Your task to perform on an android device: change notifications settings Image 0: 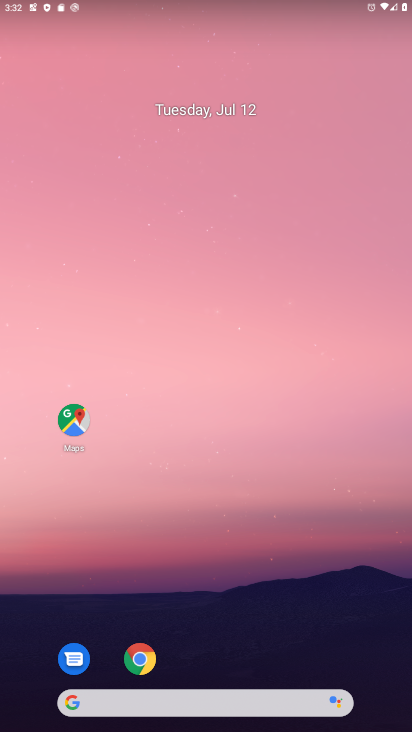
Step 0: drag from (249, 322) to (249, 143)
Your task to perform on an android device: change notifications settings Image 1: 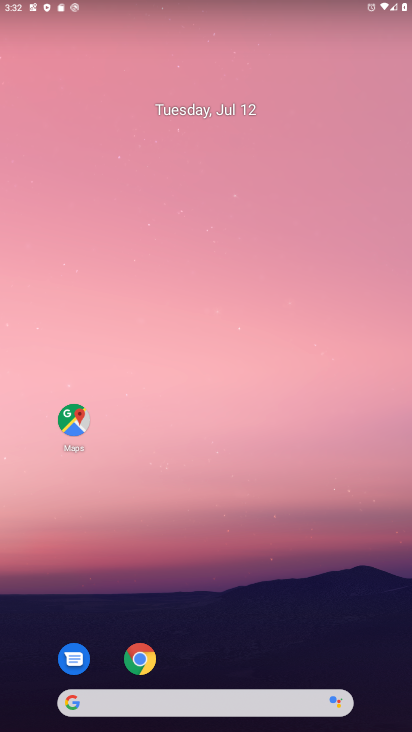
Step 1: click (256, 432)
Your task to perform on an android device: change notifications settings Image 2: 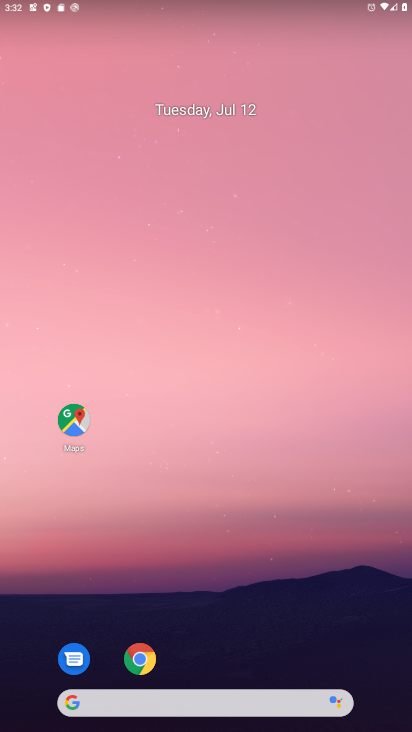
Step 2: drag from (169, 400) to (77, 122)
Your task to perform on an android device: change notifications settings Image 3: 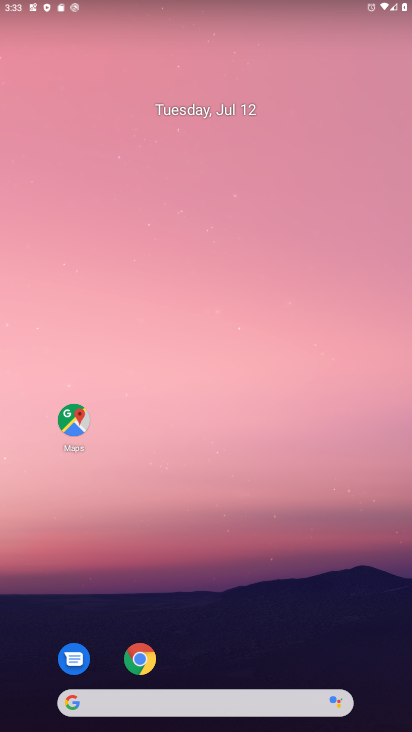
Step 3: drag from (167, 471) to (231, 2)
Your task to perform on an android device: change notifications settings Image 4: 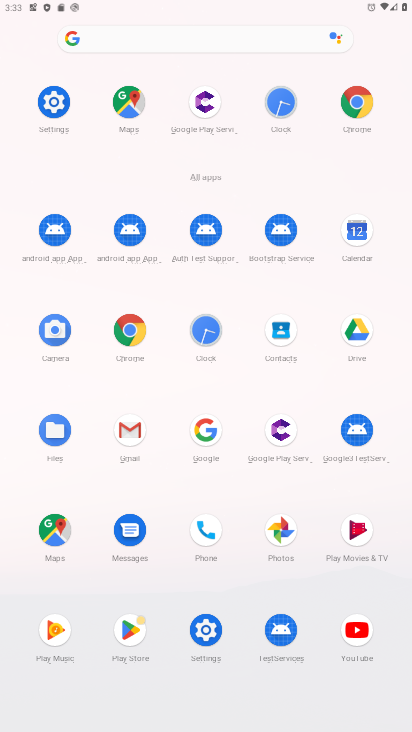
Step 4: click (47, 112)
Your task to perform on an android device: change notifications settings Image 5: 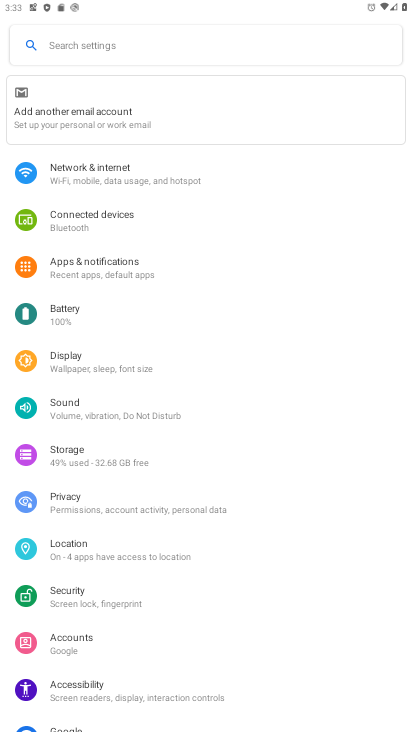
Step 5: click (131, 272)
Your task to perform on an android device: change notifications settings Image 6: 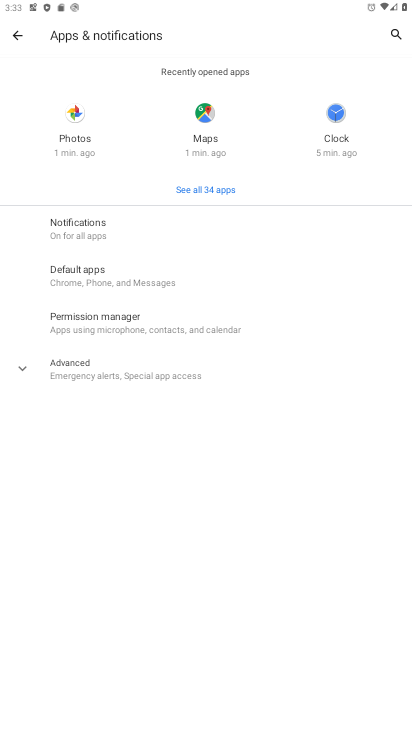
Step 6: click (72, 233)
Your task to perform on an android device: change notifications settings Image 7: 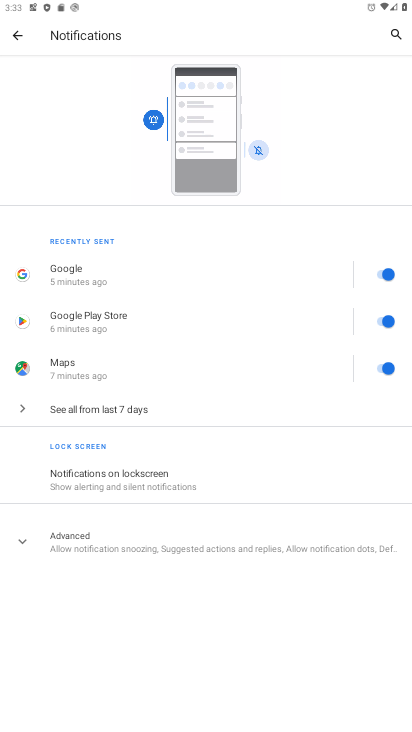
Step 7: task complete